Your task to perform on an android device: set default search engine in the chrome app Image 0: 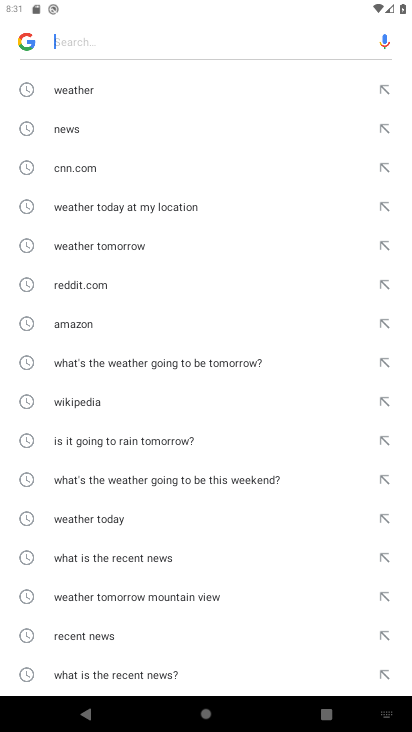
Step 0: press home button
Your task to perform on an android device: set default search engine in the chrome app Image 1: 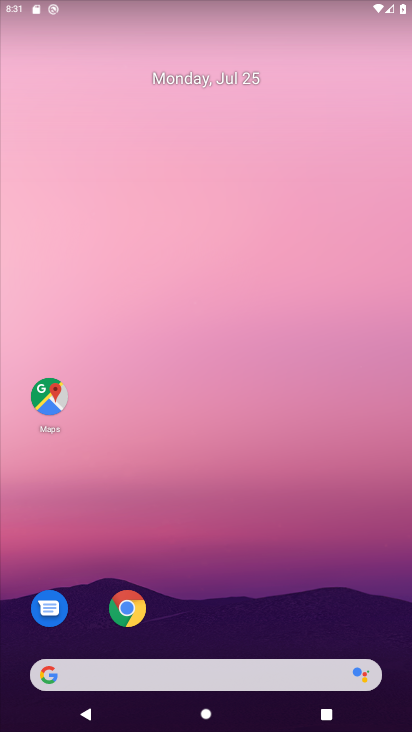
Step 1: click (129, 616)
Your task to perform on an android device: set default search engine in the chrome app Image 2: 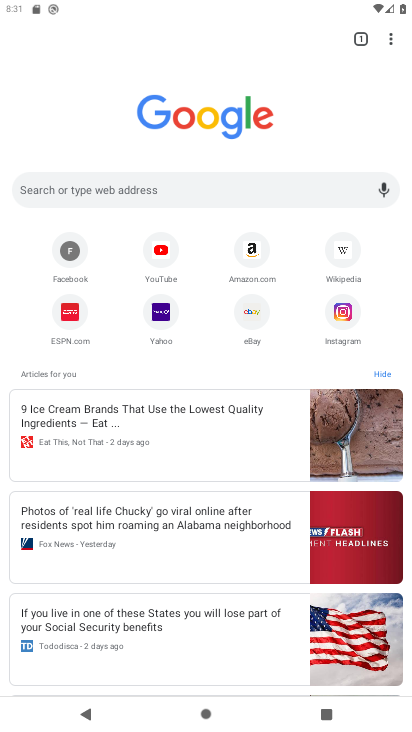
Step 2: click (383, 33)
Your task to perform on an android device: set default search engine in the chrome app Image 3: 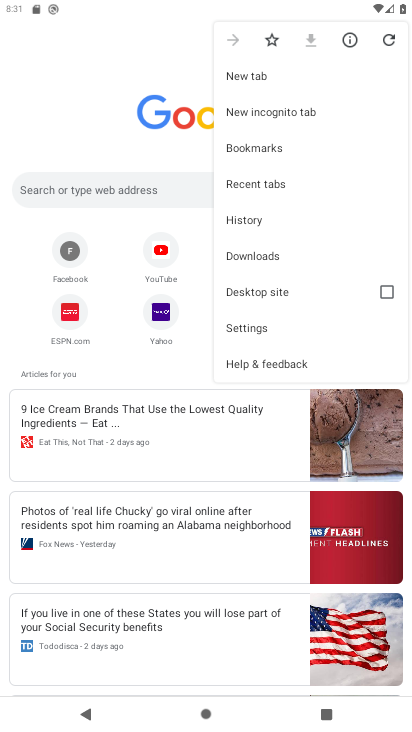
Step 3: click (259, 324)
Your task to perform on an android device: set default search engine in the chrome app Image 4: 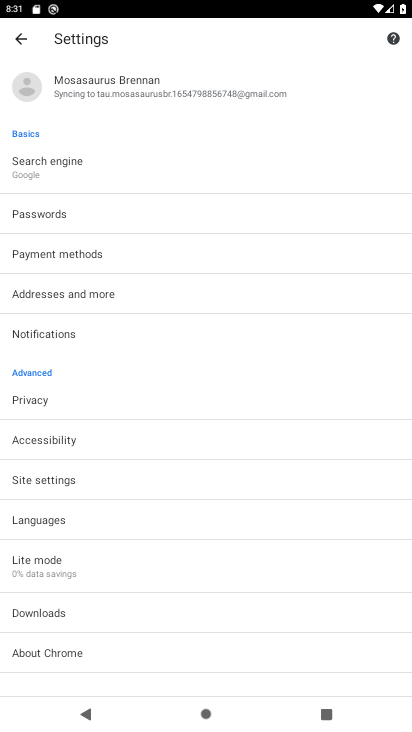
Step 4: click (48, 176)
Your task to perform on an android device: set default search engine in the chrome app Image 5: 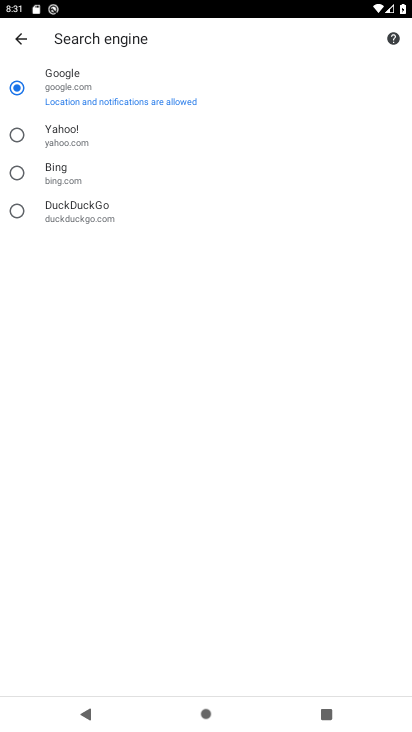
Step 5: click (69, 128)
Your task to perform on an android device: set default search engine in the chrome app Image 6: 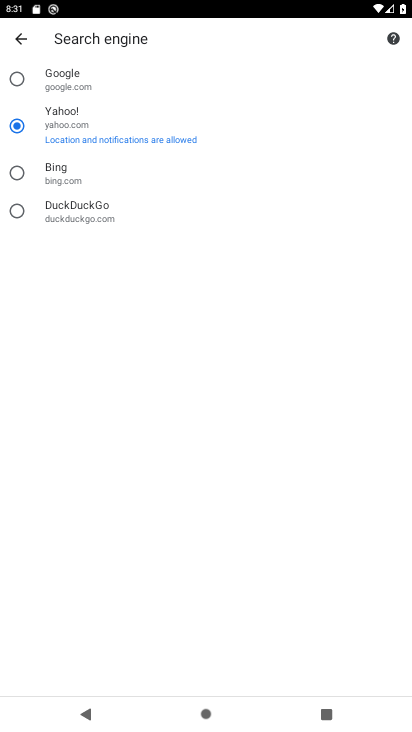
Step 6: task complete